Your task to perform on an android device: Do I have any events tomorrow? Image 0: 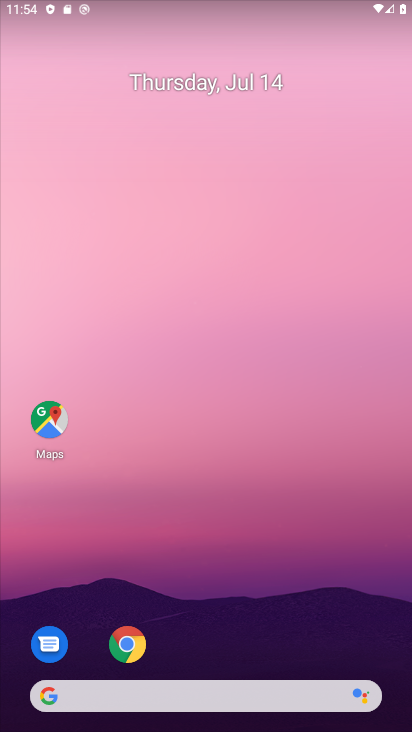
Step 0: drag from (116, 221) to (107, 177)
Your task to perform on an android device: Do I have any events tomorrow? Image 1: 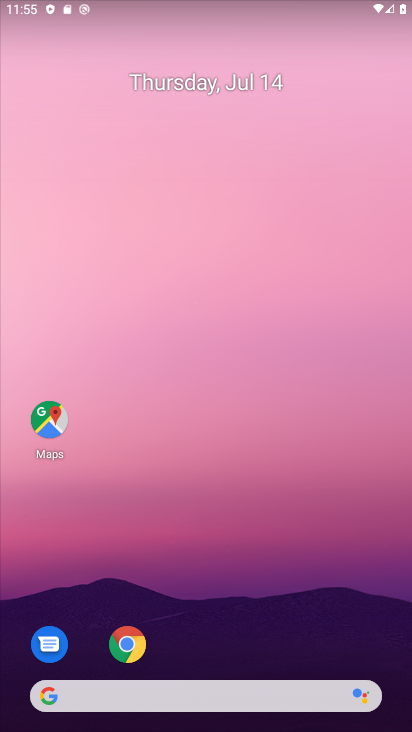
Step 1: drag from (214, 647) to (91, 41)
Your task to perform on an android device: Do I have any events tomorrow? Image 2: 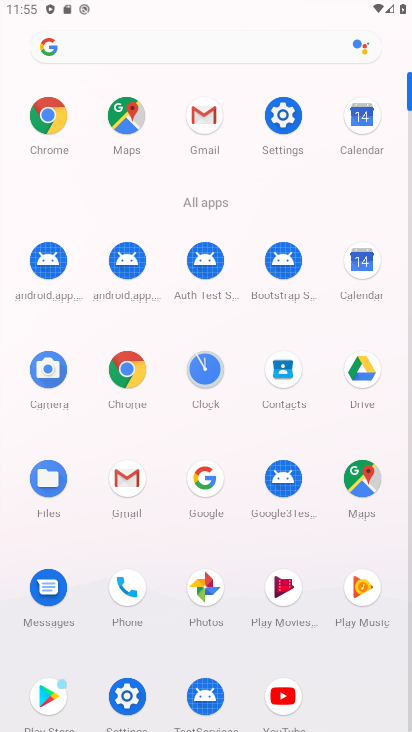
Step 2: click (350, 266)
Your task to perform on an android device: Do I have any events tomorrow? Image 3: 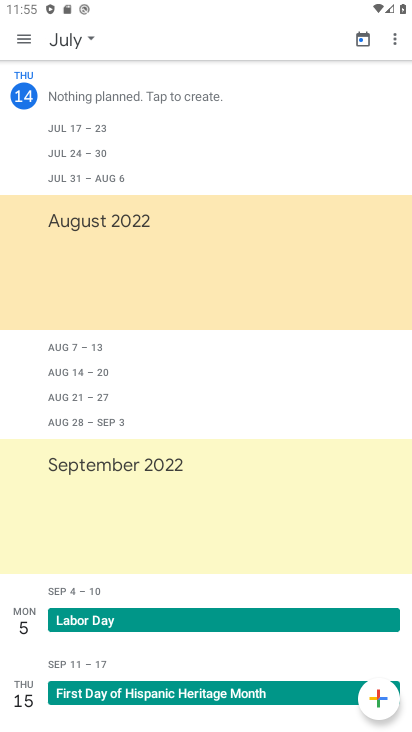
Step 3: click (361, 40)
Your task to perform on an android device: Do I have any events tomorrow? Image 4: 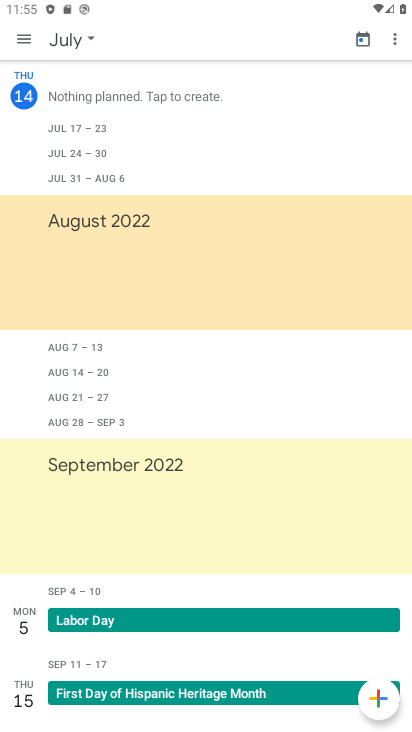
Step 4: click (355, 36)
Your task to perform on an android device: Do I have any events tomorrow? Image 5: 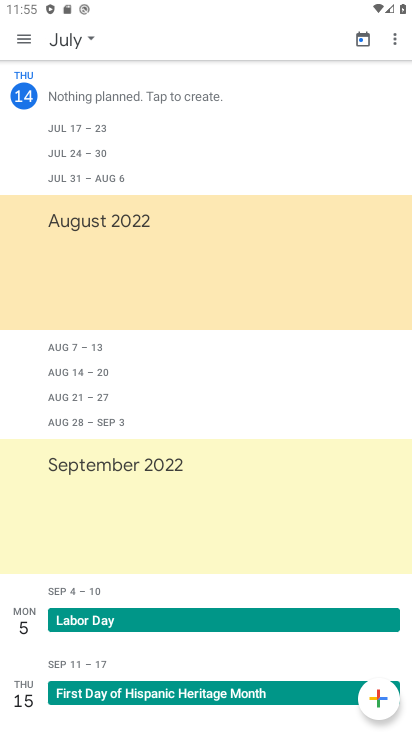
Step 5: click (9, 43)
Your task to perform on an android device: Do I have any events tomorrow? Image 6: 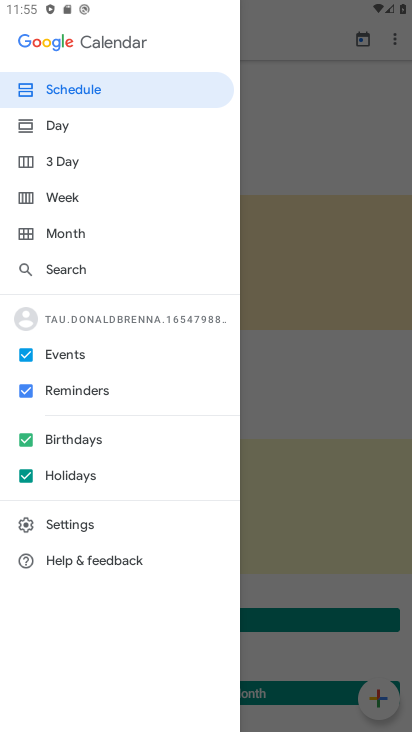
Step 6: click (73, 191)
Your task to perform on an android device: Do I have any events tomorrow? Image 7: 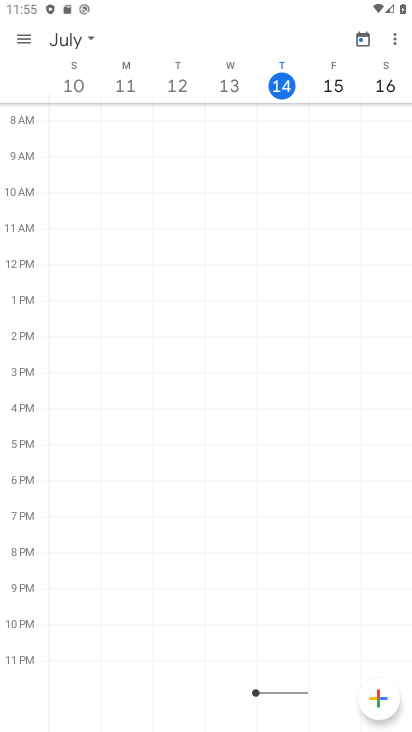
Step 7: click (320, 83)
Your task to perform on an android device: Do I have any events tomorrow? Image 8: 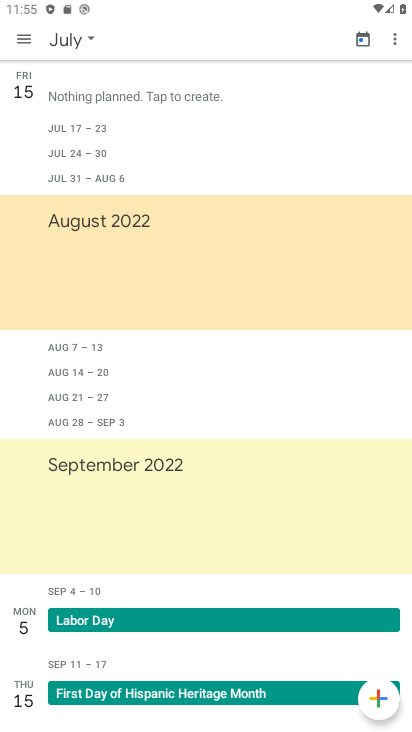
Step 8: task complete